Your task to perform on an android device: open chrome and create a bookmark for the current page Image 0: 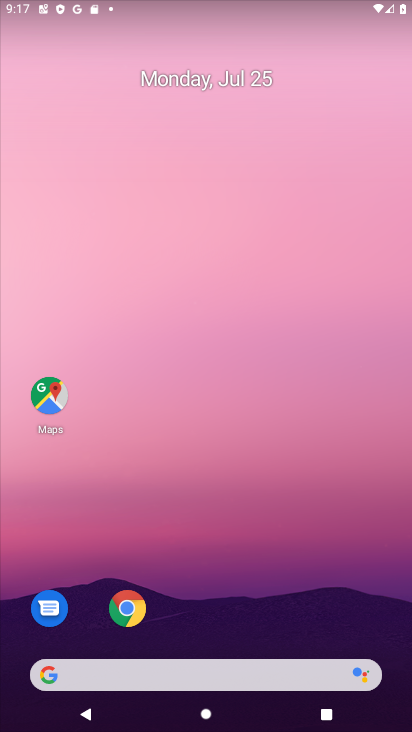
Step 0: drag from (211, 615) to (219, 229)
Your task to perform on an android device: open chrome and create a bookmark for the current page Image 1: 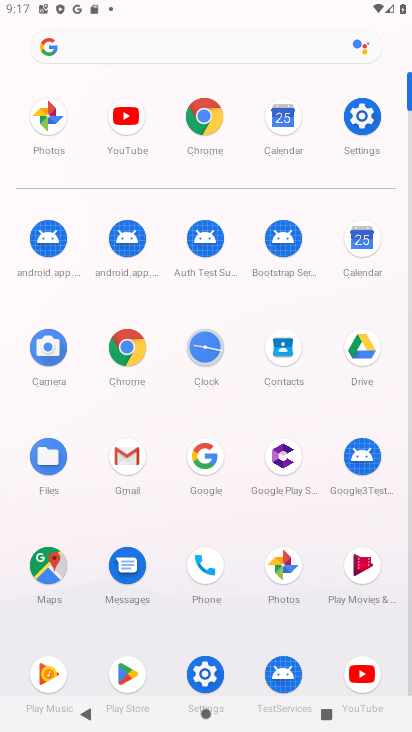
Step 1: click (201, 109)
Your task to perform on an android device: open chrome and create a bookmark for the current page Image 2: 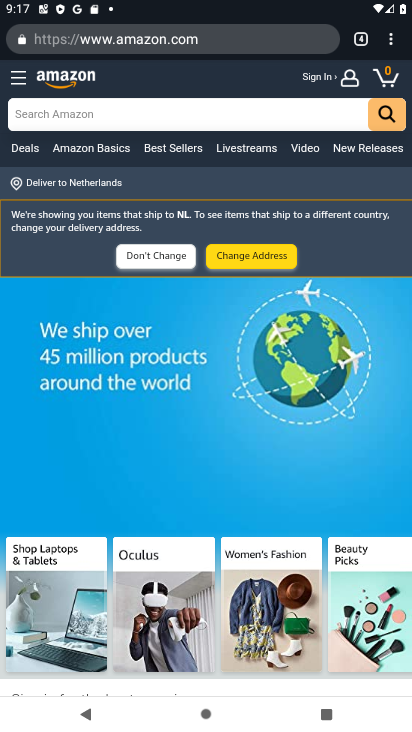
Step 2: click (390, 41)
Your task to perform on an android device: open chrome and create a bookmark for the current page Image 3: 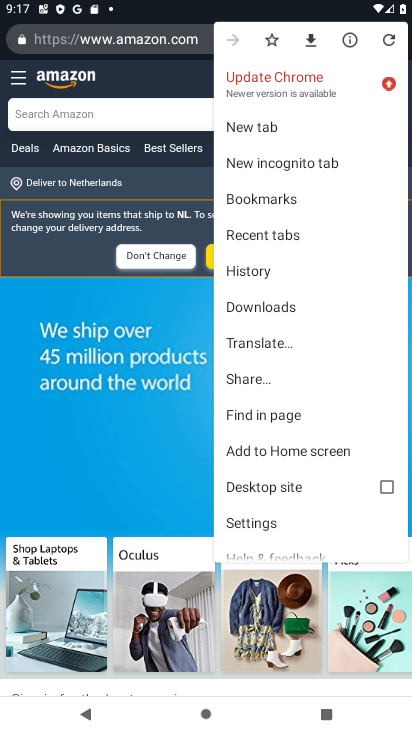
Step 3: click (272, 33)
Your task to perform on an android device: open chrome and create a bookmark for the current page Image 4: 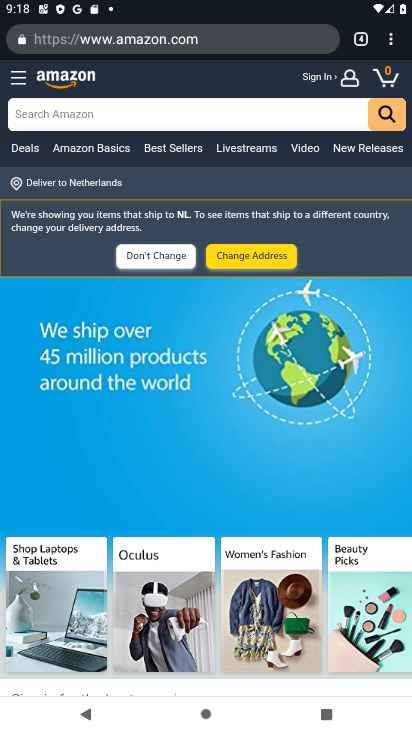
Step 4: task complete